Your task to perform on an android device: Open the Play Movies app and select the watchlist tab. Image 0: 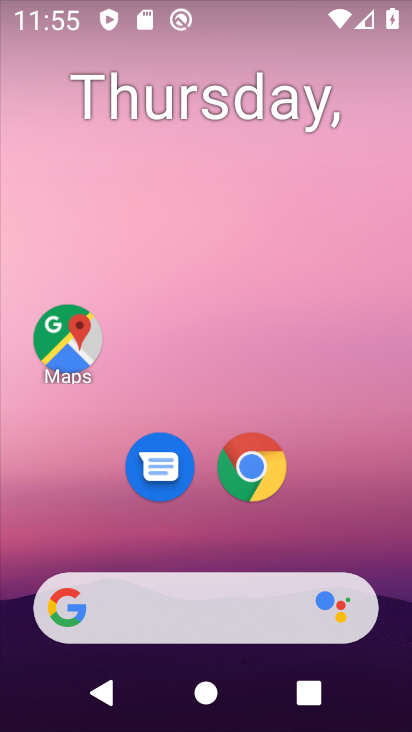
Step 0: drag from (378, 556) to (371, 186)
Your task to perform on an android device: Open the Play Movies app and select the watchlist tab. Image 1: 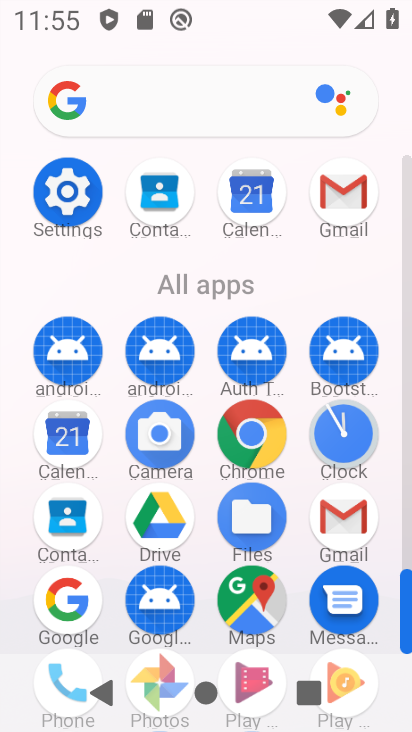
Step 1: drag from (404, 558) to (402, 520)
Your task to perform on an android device: Open the Play Movies app and select the watchlist tab. Image 2: 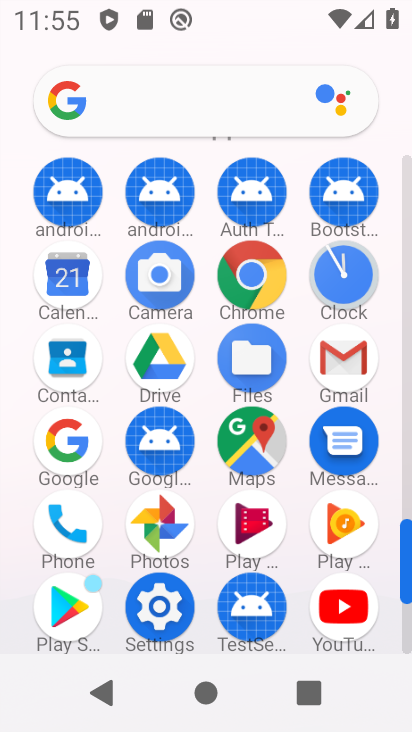
Step 2: click (255, 519)
Your task to perform on an android device: Open the Play Movies app and select the watchlist tab. Image 3: 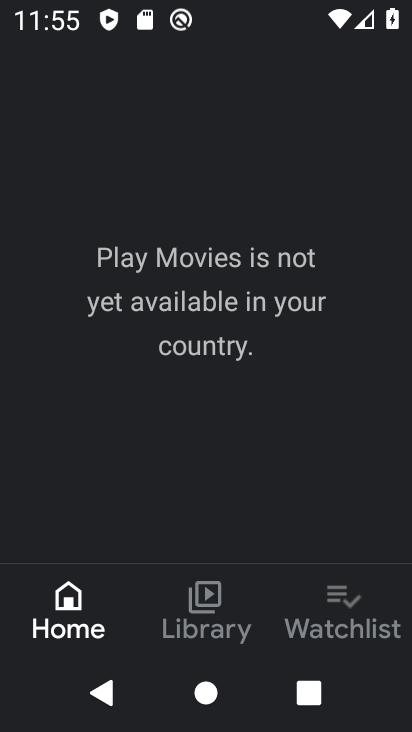
Step 3: click (341, 597)
Your task to perform on an android device: Open the Play Movies app and select the watchlist tab. Image 4: 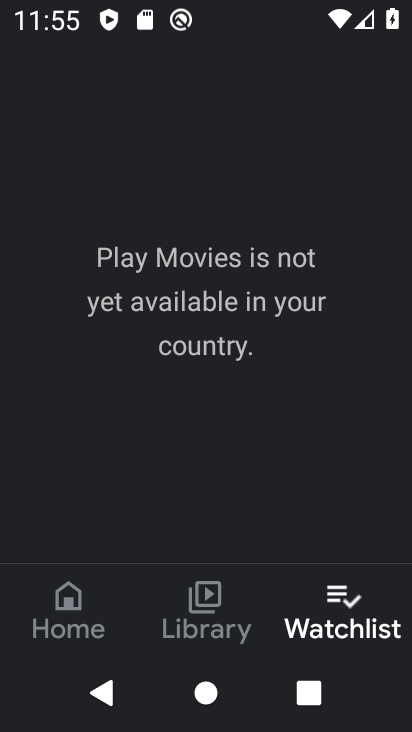
Step 4: task complete